Your task to perform on an android device: clear all cookies in the chrome app Image 0: 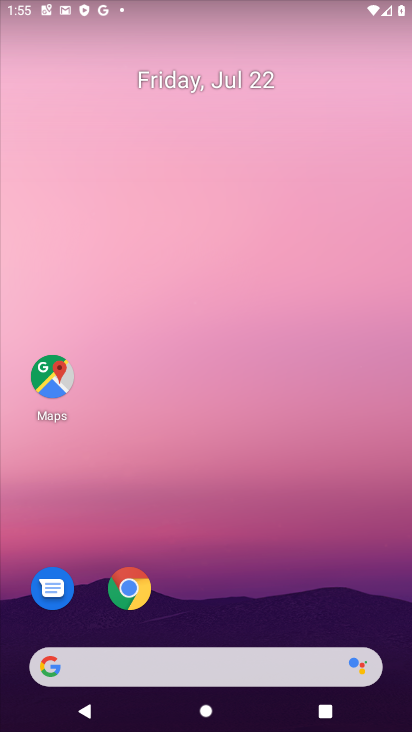
Step 0: click (140, 588)
Your task to perform on an android device: clear all cookies in the chrome app Image 1: 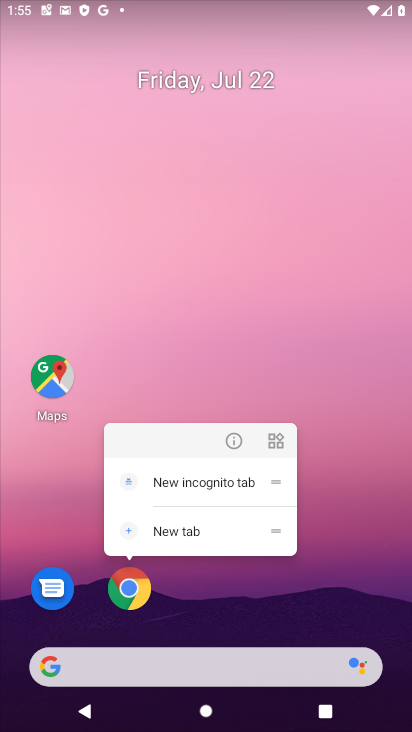
Step 1: click (132, 593)
Your task to perform on an android device: clear all cookies in the chrome app Image 2: 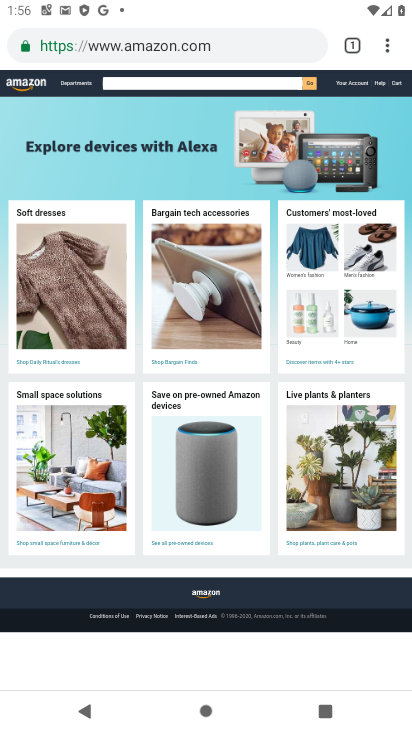
Step 2: drag from (383, 41) to (254, 255)
Your task to perform on an android device: clear all cookies in the chrome app Image 3: 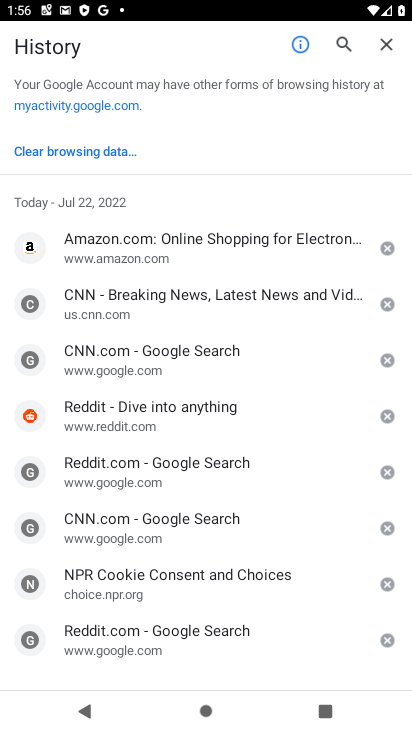
Step 3: click (75, 139)
Your task to perform on an android device: clear all cookies in the chrome app Image 4: 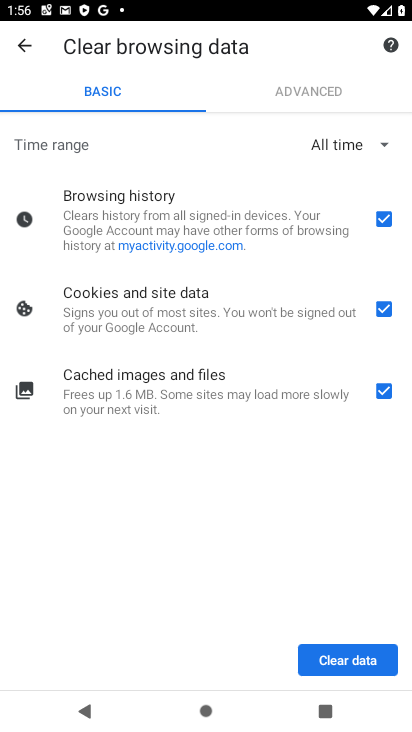
Step 4: click (388, 220)
Your task to perform on an android device: clear all cookies in the chrome app Image 5: 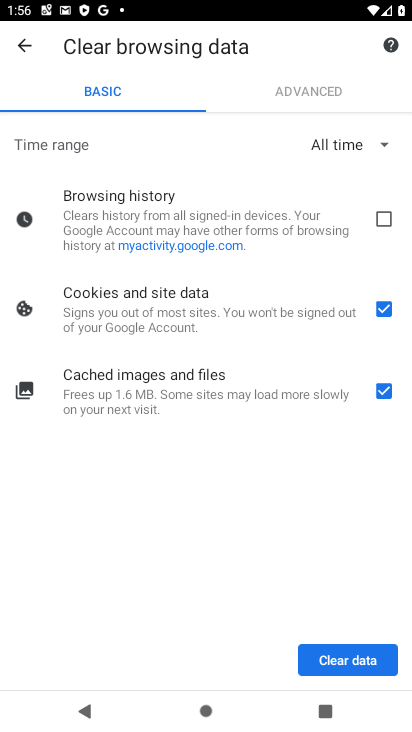
Step 5: click (390, 387)
Your task to perform on an android device: clear all cookies in the chrome app Image 6: 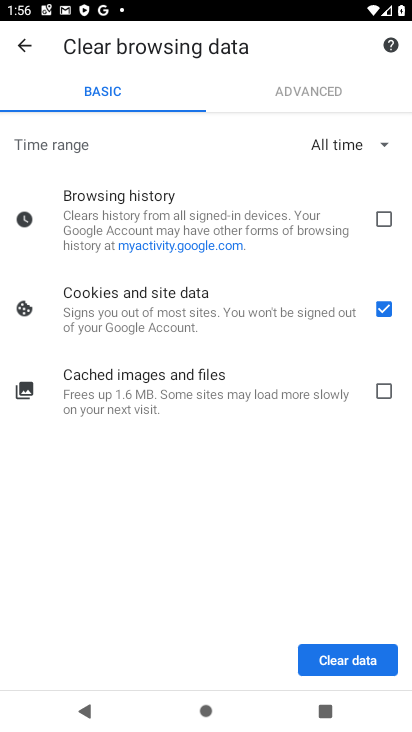
Step 6: click (357, 661)
Your task to perform on an android device: clear all cookies in the chrome app Image 7: 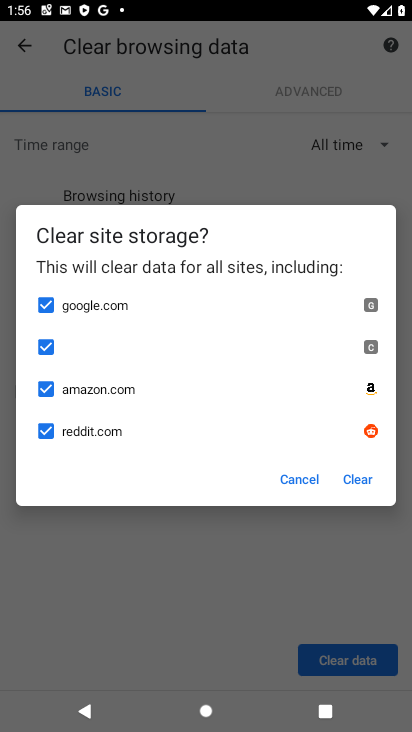
Step 7: click (360, 474)
Your task to perform on an android device: clear all cookies in the chrome app Image 8: 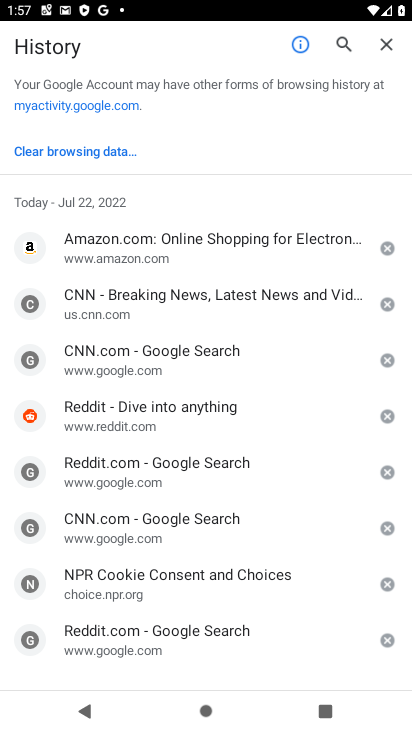
Step 8: task complete